Your task to perform on an android device: toggle wifi Image 0: 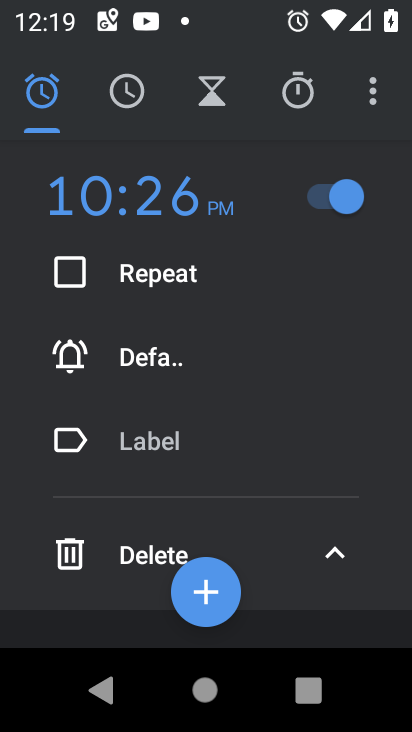
Step 0: press home button
Your task to perform on an android device: toggle wifi Image 1: 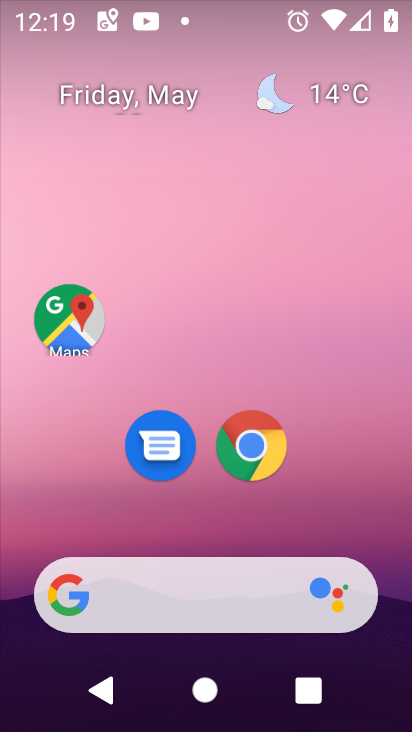
Step 1: drag from (210, 14) to (230, 517)
Your task to perform on an android device: toggle wifi Image 2: 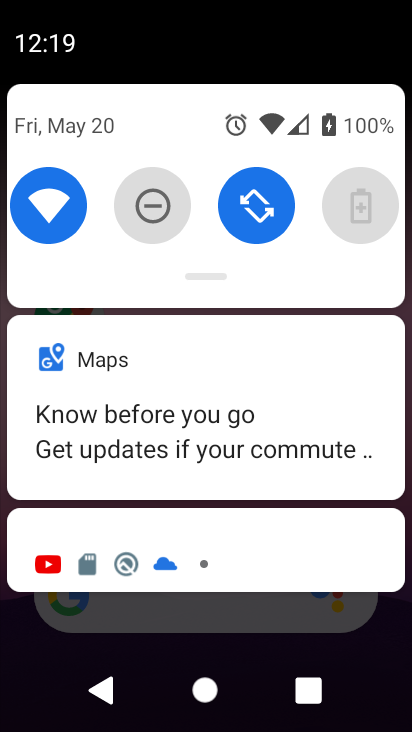
Step 2: click (37, 224)
Your task to perform on an android device: toggle wifi Image 3: 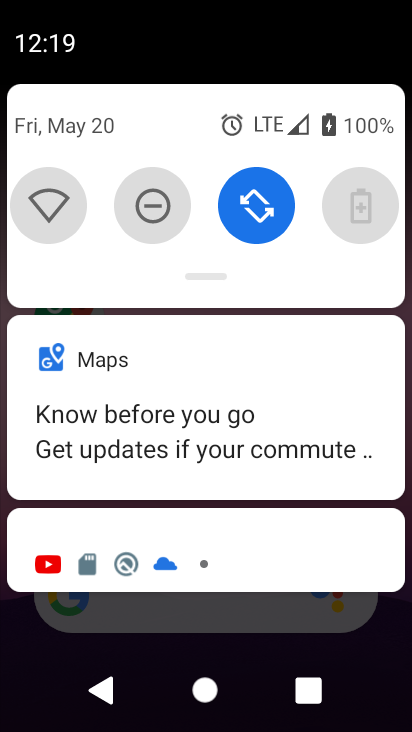
Step 3: click (223, 642)
Your task to perform on an android device: toggle wifi Image 4: 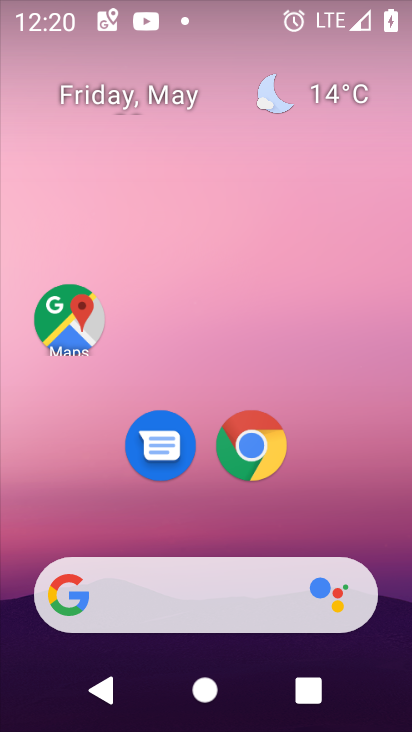
Step 4: task complete